Your task to perform on an android device: change notifications settings Image 0: 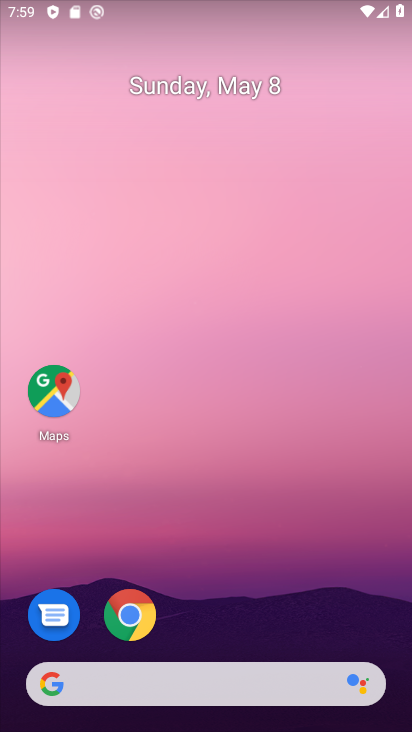
Step 0: drag from (268, 625) to (291, 102)
Your task to perform on an android device: change notifications settings Image 1: 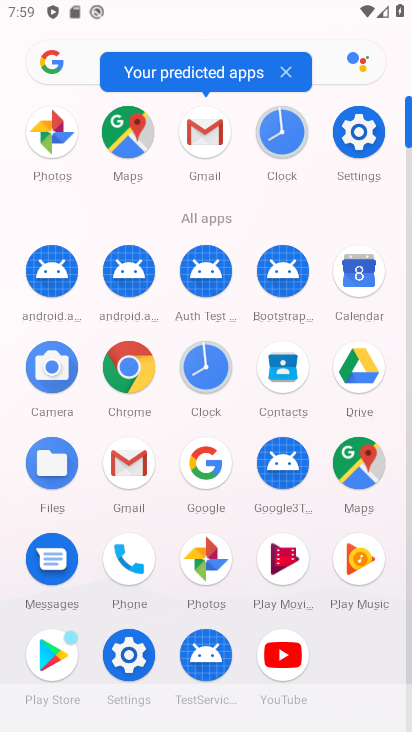
Step 1: click (354, 146)
Your task to perform on an android device: change notifications settings Image 2: 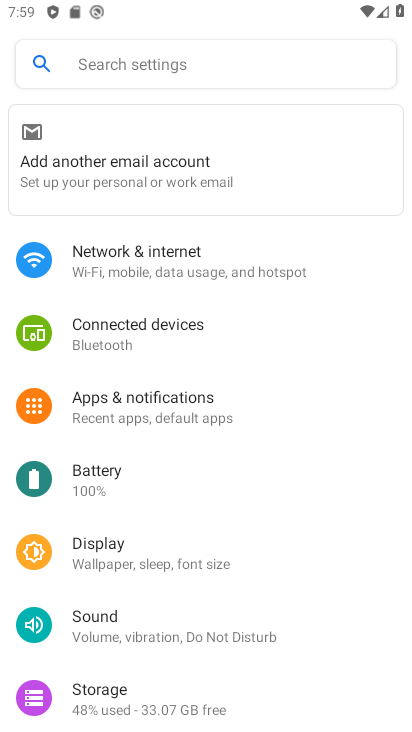
Step 2: click (237, 401)
Your task to perform on an android device: change notifications settings Image 3: 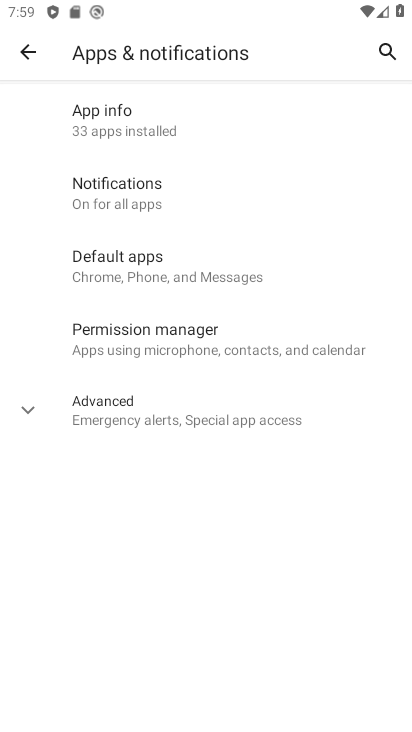
Step 3: click (194, 203)
Your task to perform on an android device: change notifications settings Image 4: 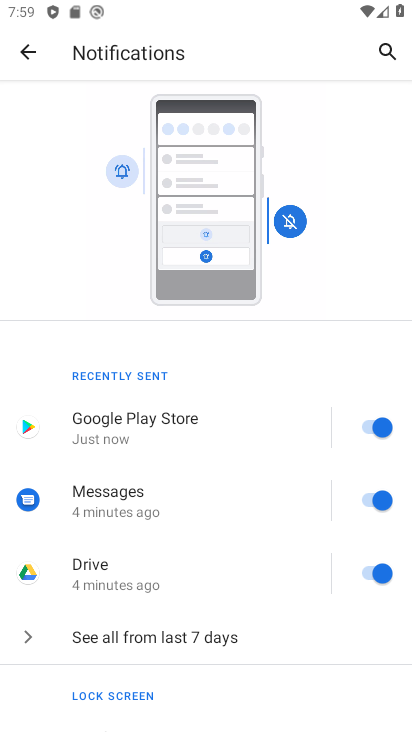
Step 4: drag from (151, 546) to (228, 171)
Your task to perform on an android device: change notifications settings Image 5: 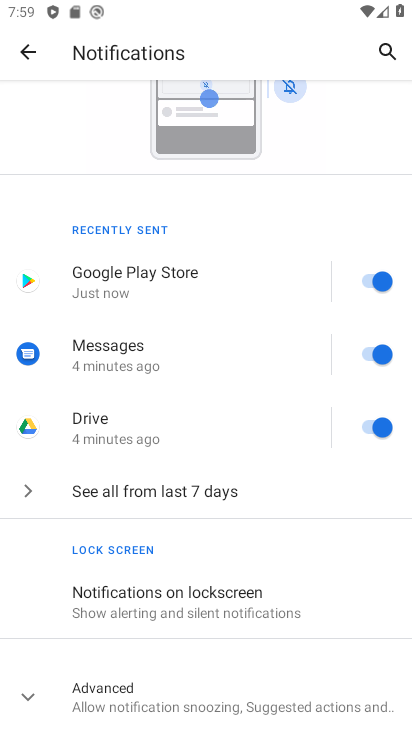
Step 5: drag from (214, 633) to (227, 432)
Your task to perform on an android device: change notifications settings Image 6: 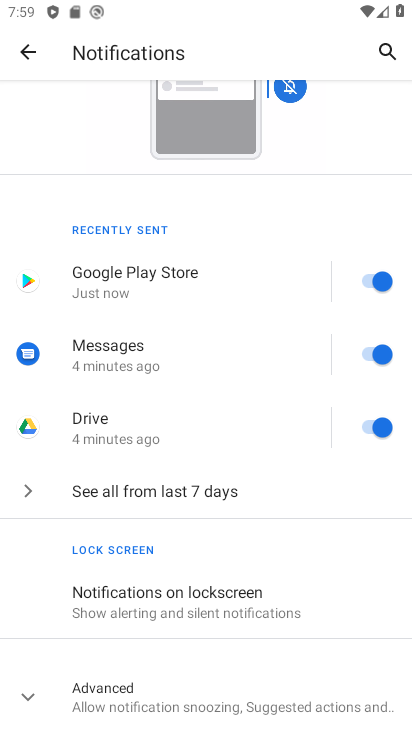
Step 6: click (244, 714)
Your task to perform on an android device: change notifications settings Image 7: 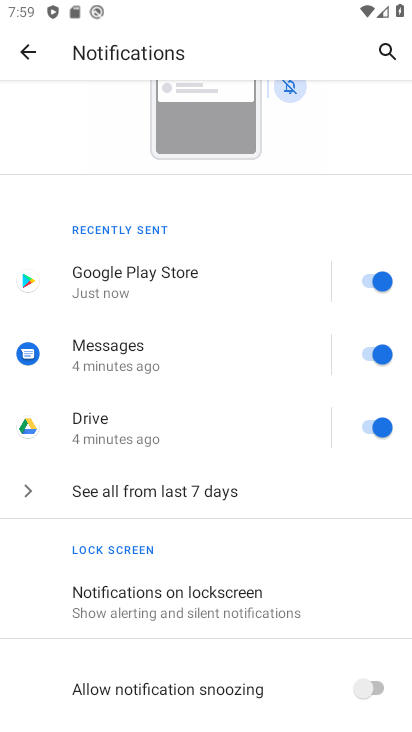
Step 7: drag from (292, 585) to (329, 254)
Your task to perform on an android device: change notifications settings Image 8: 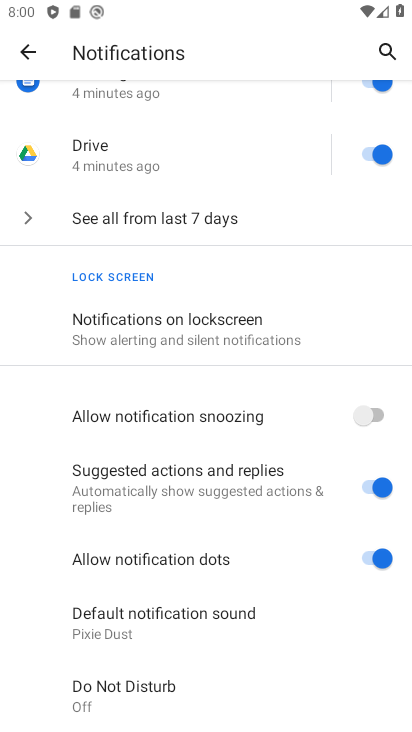
Step 8: click (372, 484)
Your task to perform on an android device: change notifications settings Image 9: 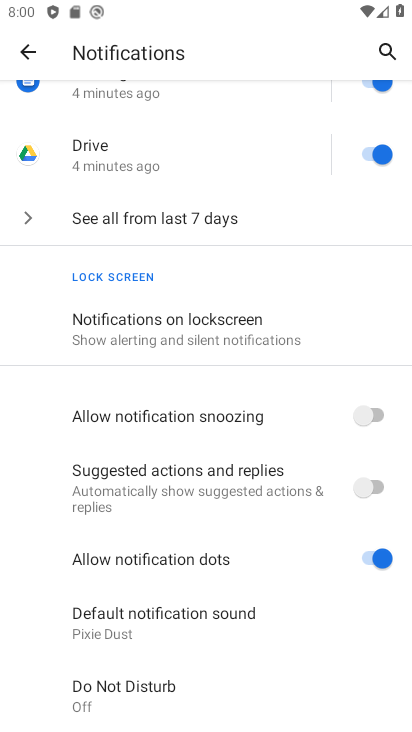
Step 9: click (384, 549)
Your task to perform on an android device: change notifications settings Image 10: 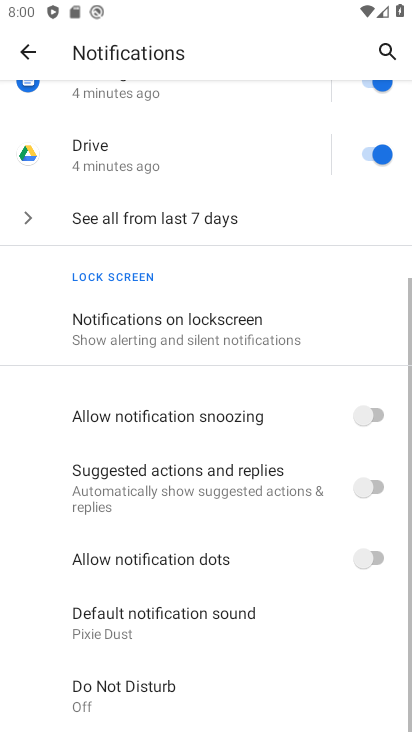
Step 10: click (381, 426)
Your task to perform on an android device: change notifications settings Image 11: 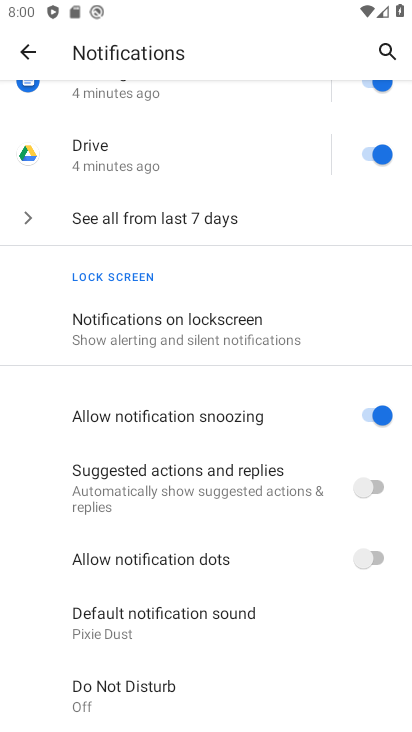
Step 11: task complete